Your task to perform on an android device: check android version Image 0: 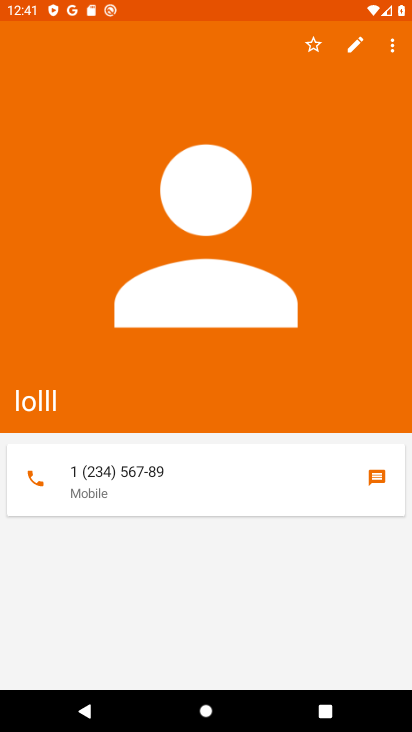
Step 0: press home button
Your task to perform on an android device: check android version Image 1: 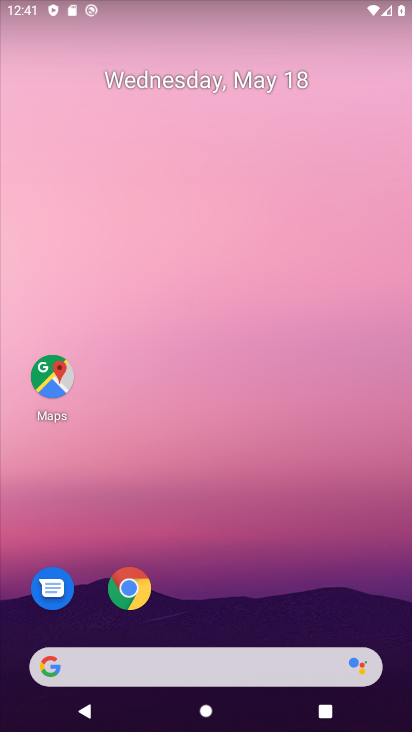
Step 1: drag from (331, 447) to (328, 71)
Your task to perform on an android device: check android version Image 2: 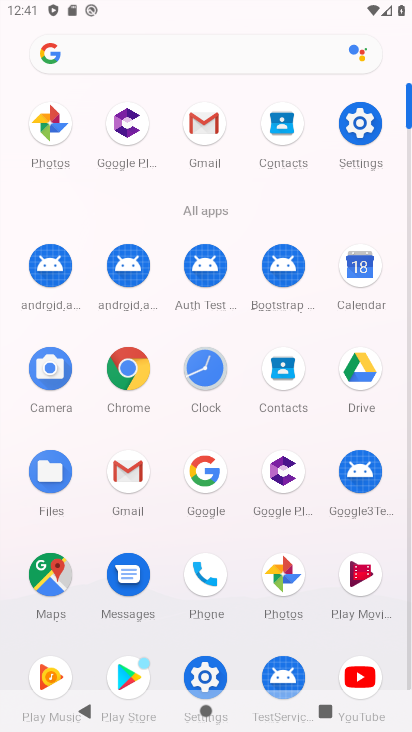
Step 2: click (363, 127)
Your task to perform on an android device: check android version Image 3: 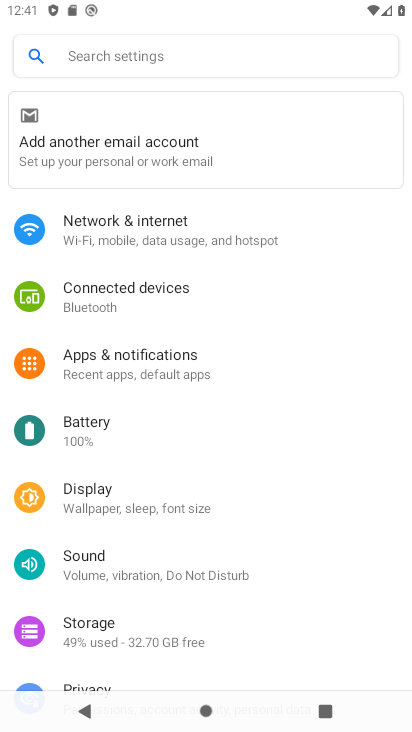
Step 3: drag from (358, 576) to (357, 410)
Your task to perform on an android device: check android version Image 4: 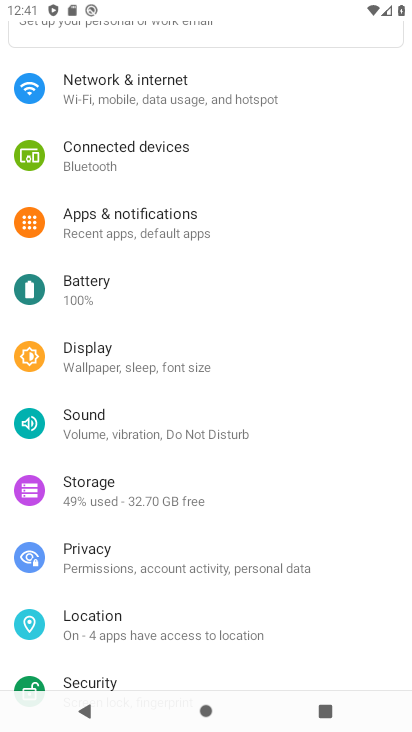
Step 4: drag from (344, 578) to (341, 443)
Your task to perform on an android device: check android version Image 5: 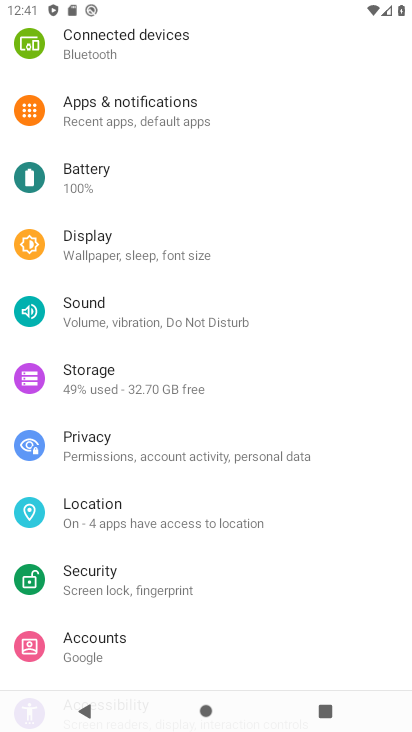
Step 5: drag from (332, 604) to (340, 427)
Your task to perform on an android device: check android version Image 6: 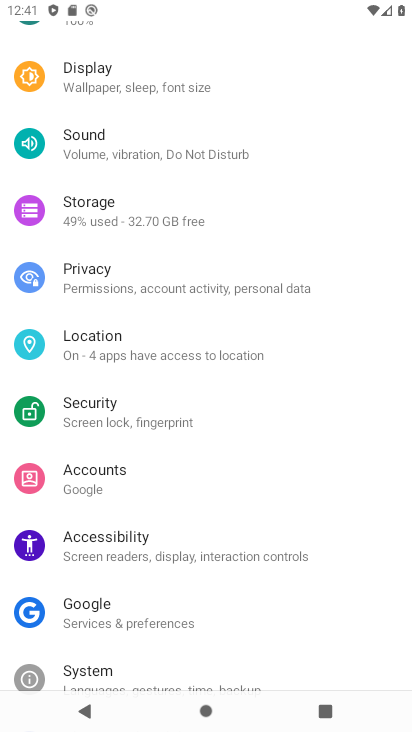
Step 6: drag from (336, 557) to (336, 398)
Your task to perform on an android device: check android version Image 7: 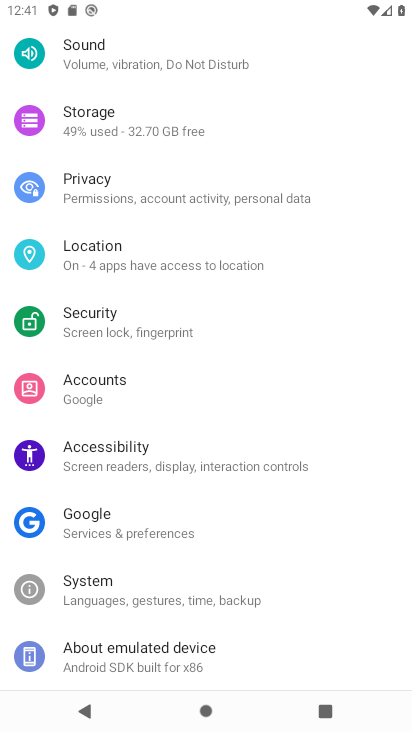
Step 7: drag from (326, 593) to (337, 404)
Your task to perform on an android device: check android version Image 8: 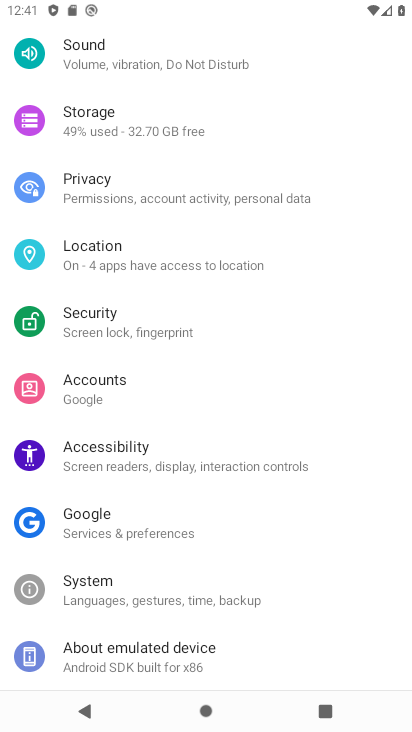
Step 8: drag from (342, 588) to (344, 414)
Your task to perform on an android device: check android version Image 9: 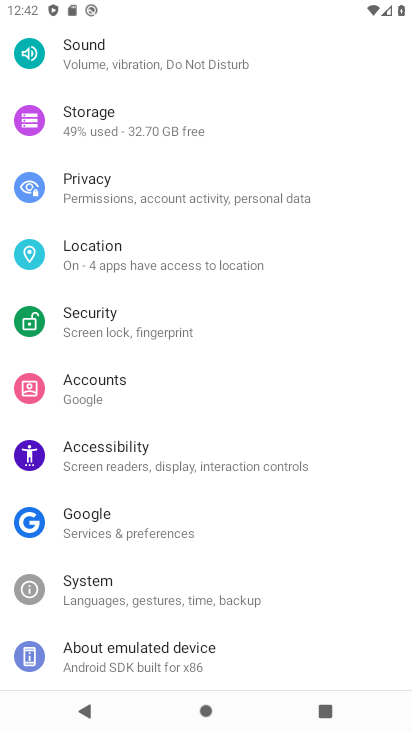
Step 9: drag from (345, 559) to (345, 402)
Your task to perform on an android device: check android version Image 10: 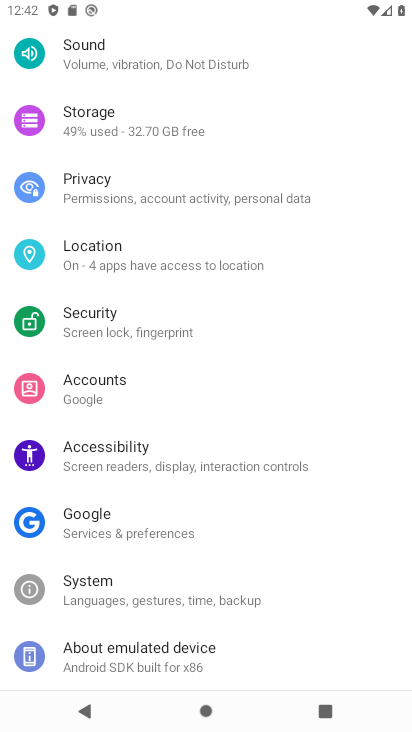
Step 10: click (246, 607)
Your task to perform on an android device: check android version Image 11: 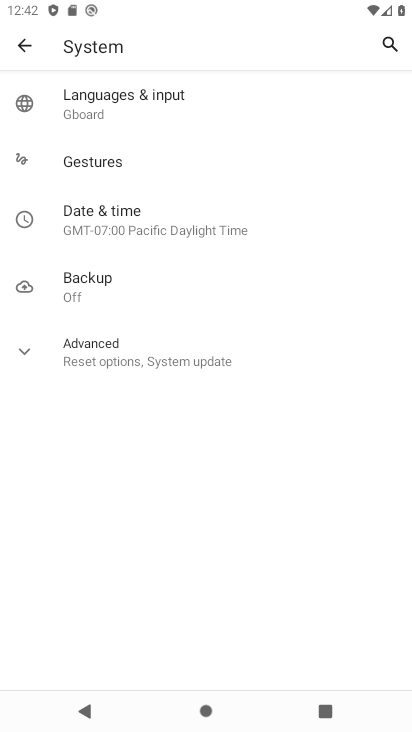
Step 11: click (176, 363)
Your task to perform on an android device: check android version Image 12: 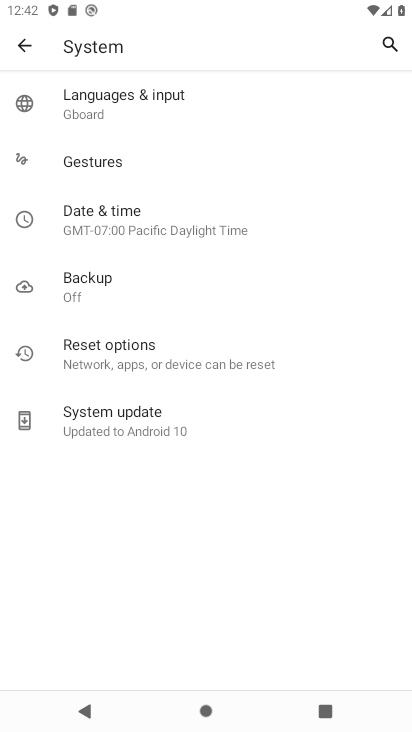
Step 12: click (155, 415)
Your task to perform on an android device: check android version Image 13: 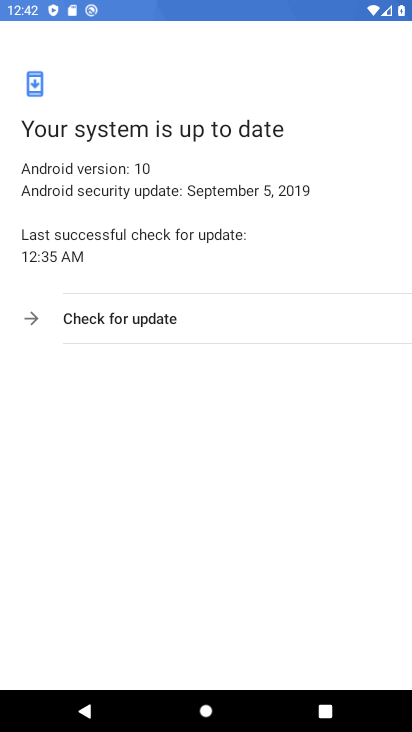
Step 13: task complete